Your task to perform on an android device: Go to Android settings Image 0: 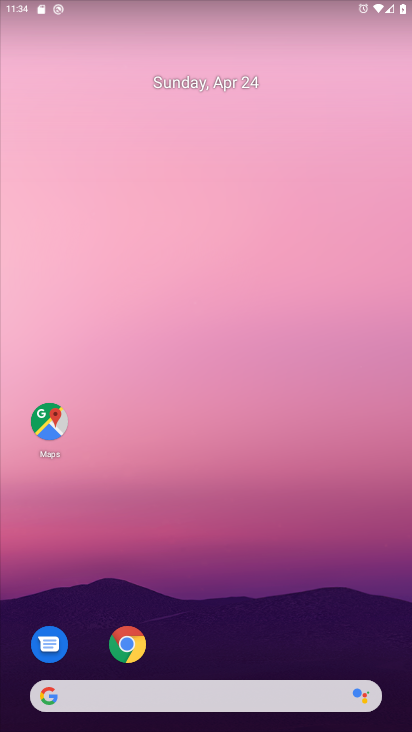
Step 0: drag from (214, 593) to (291, 2)
Your task to perform on an android device: Go to Android settings Image 1: 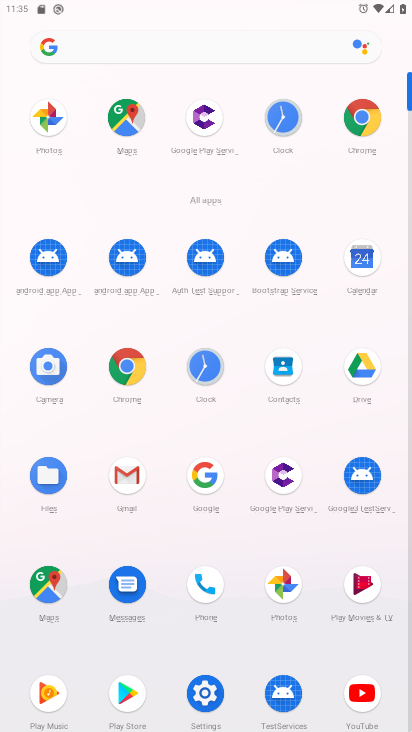
Step 1: click (202, 694)
Your task to perform on an android device: Go to Android settings Image 2: 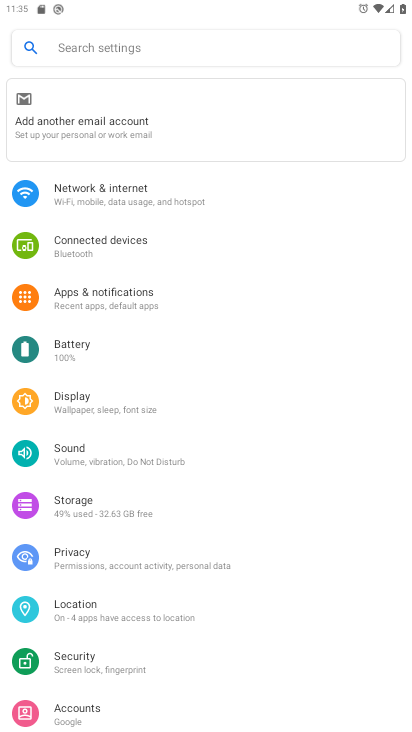
Step 2: drag from (94, 674) to (193, 325)
Your task to perform on an android device: Go to Android settings Image 3: 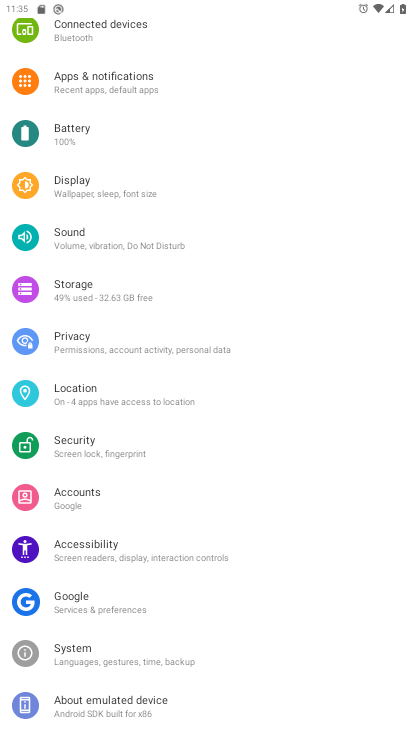
Step 3: click (91, 700)
Your task to perform on an android device: Go to Android settings Image 4: 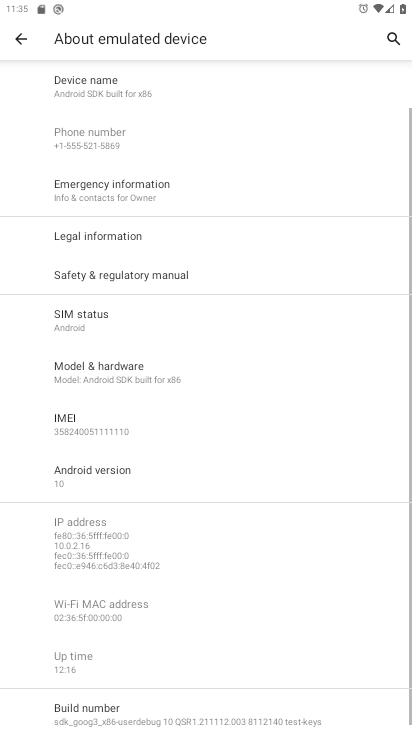
Step 4: click (131, 481)
Your task to perform on an android device: Go to Android settings Image 5: 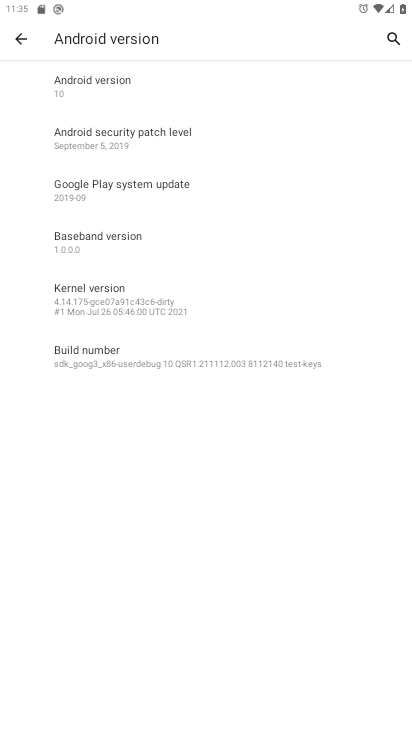
Step 5: task complete